Your task to perform on an android device: Turn off the flashlight Image 0: 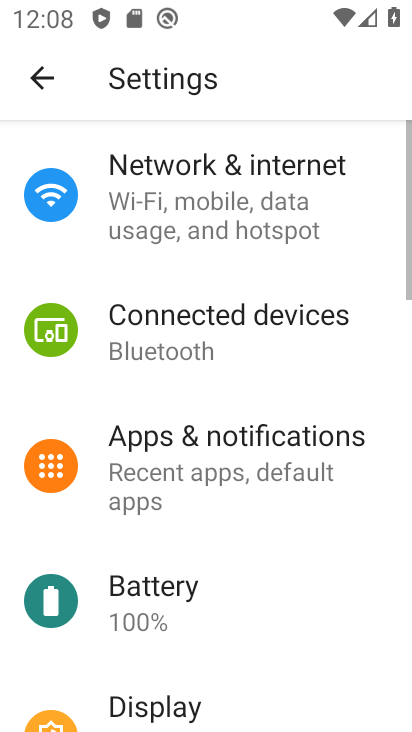
Step 0: press home button
Your task to perform on an android device: Turn off the flashlight Image 1: 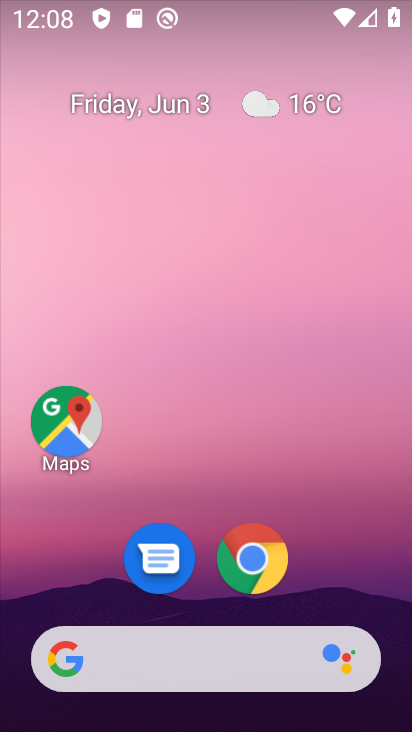
Step 1: drag from (237, 7) to (215, 361)
Your task to perform on an android device: Turn off the flashlight Image 2: 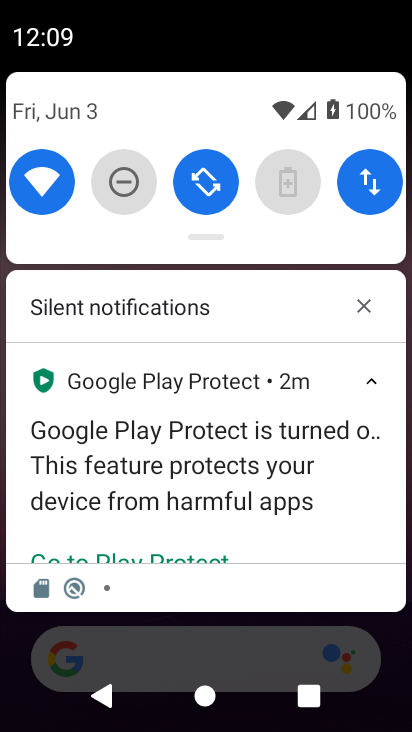
Step 2: drag from (244, 119) to (242, 359)
Your task to perform on an android device: Turn off the flashlight Image 3: 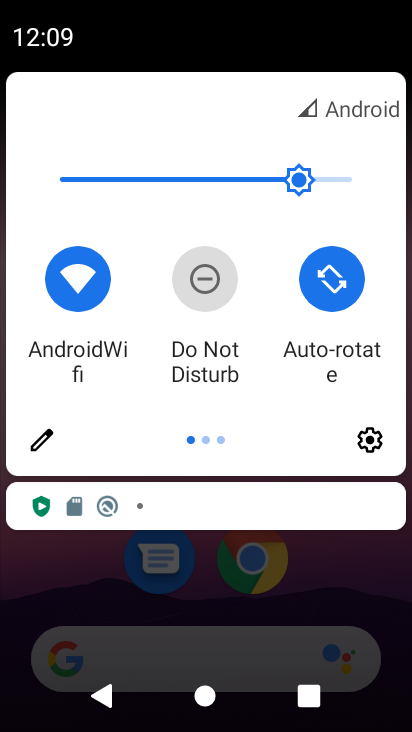
Step 3: click (46, 440)
Your task to perform on an android device: Turn off the flashlight Image 4: 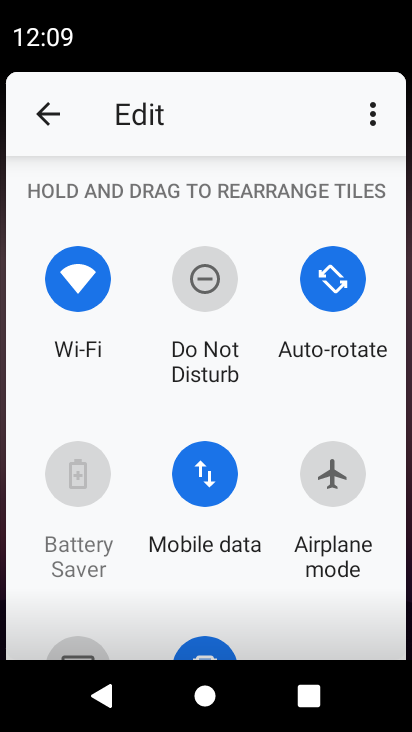
Step 4: task complete